Your task to perform on an android device: Search for Mexican restaurants on Maps Image 0: 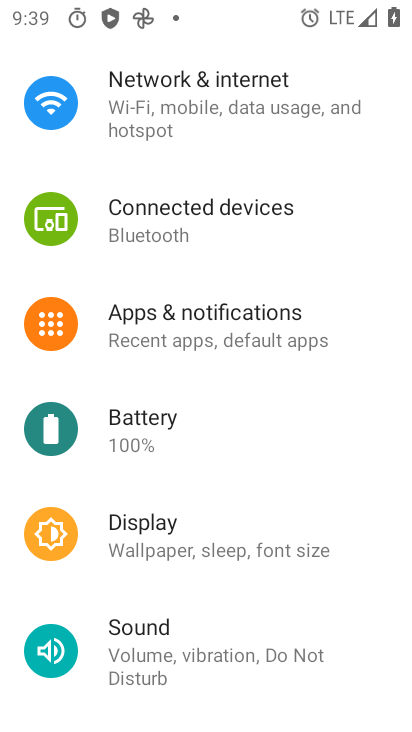
Step 0: press back button
Your task to perform on an android device: Search for Mexican restaurants on Maps Image 1: 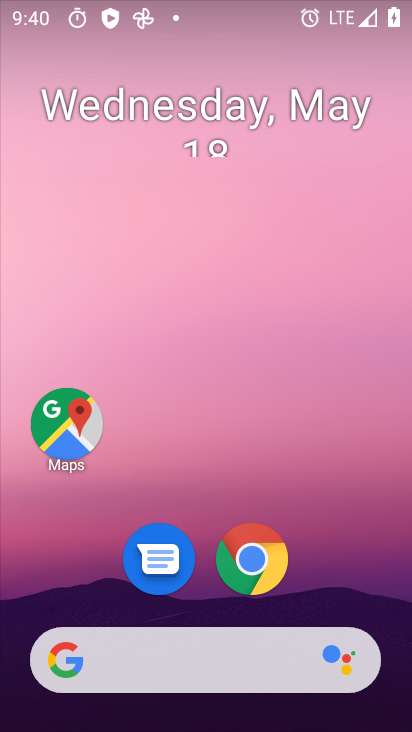
Step 1: drag from (348, 560) to (219, 15)
Your task to perform on an android device: Search for Mexican restaurants on Maps Image 2: 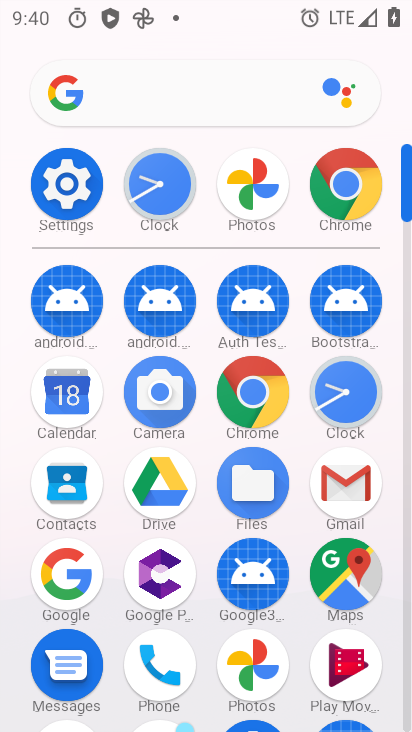
Step 2: click (349, 562)
Your task to perform on an android device: Search for Mexican restaurants on Maps Image 3: 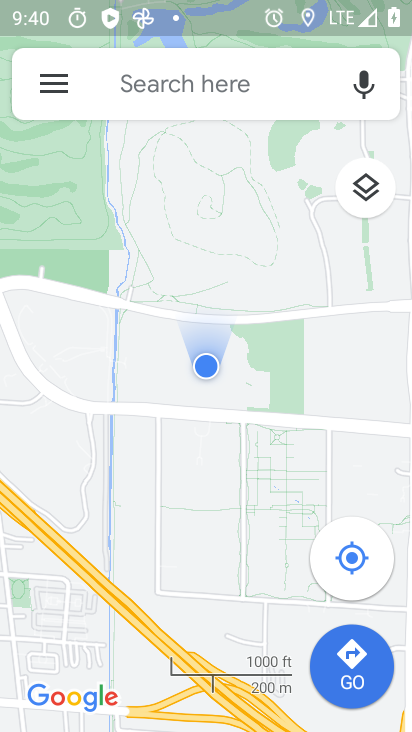
Step 3: click (256, 78)
Your task to perform on an android device: Search for Mexican restaurants on Maps Image 4: 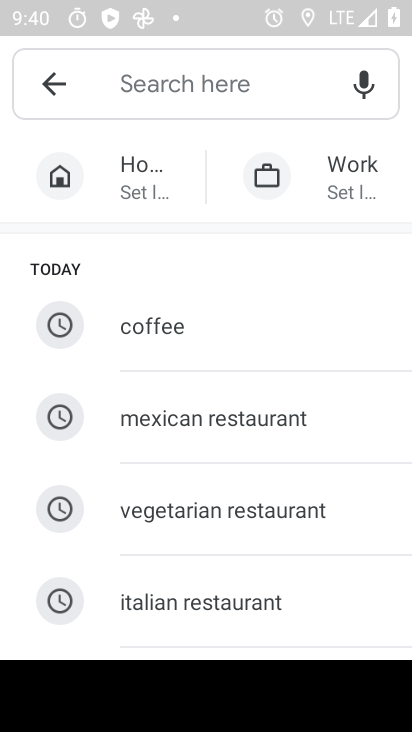
Step 4: click (142, 428)
Your task to perform on an android device: Search for Mexican restaurants on Maps Image 5: 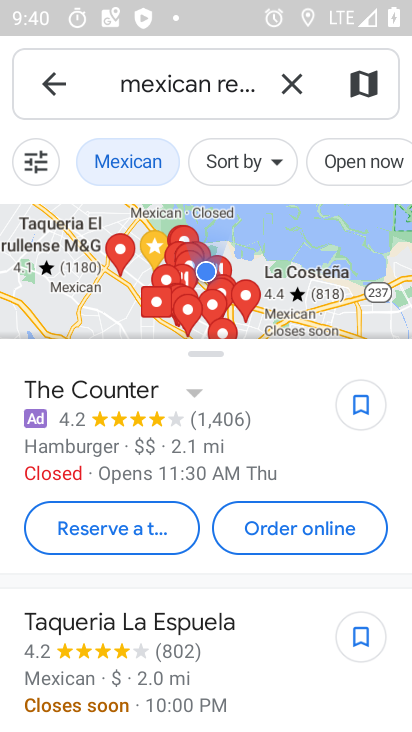
Step 5: task complete